Your task to perform on an android device: turn on location history Image 0: 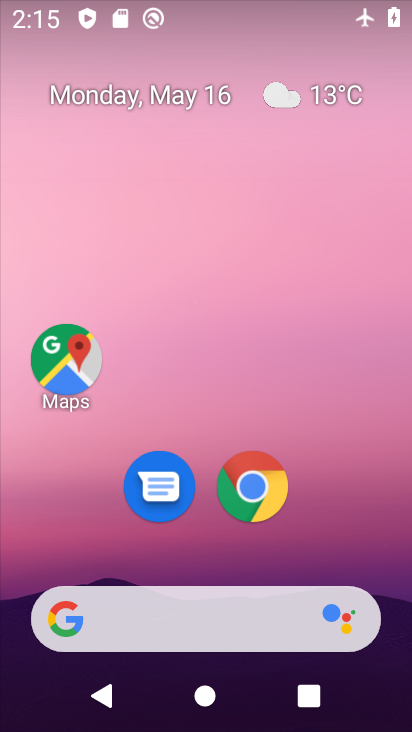
Step 0: drag from (376, 451) to (337, 76)
Your task to perform on an android device: turn on location history Image 1: 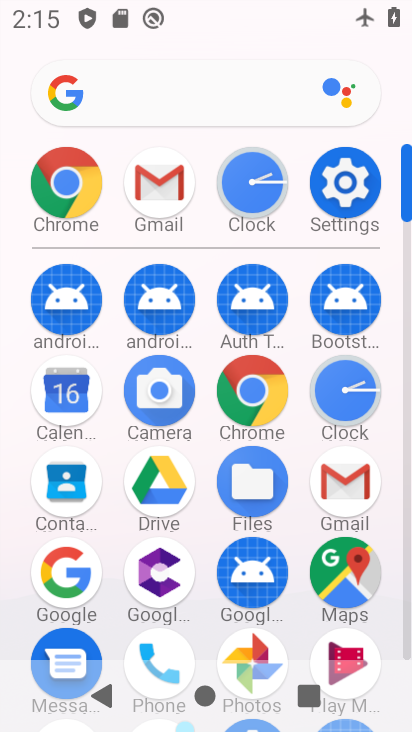
Step 1: click (344, 162)
Your task to perform on an android device: turn on location history Image 2: 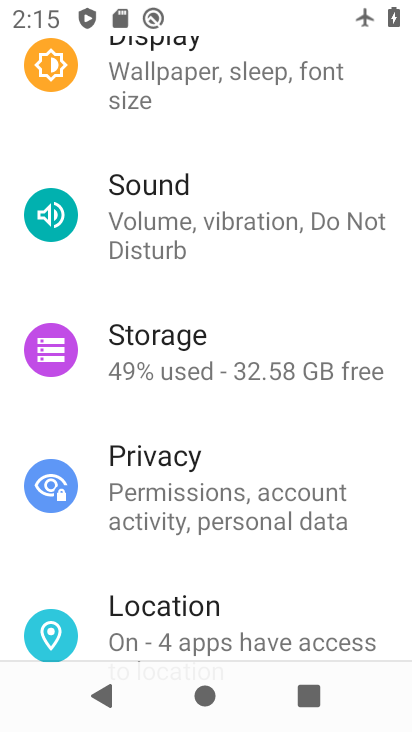
Step 2: click (196, 611)
Your task to perform on an android device: turn on location history Image 3: 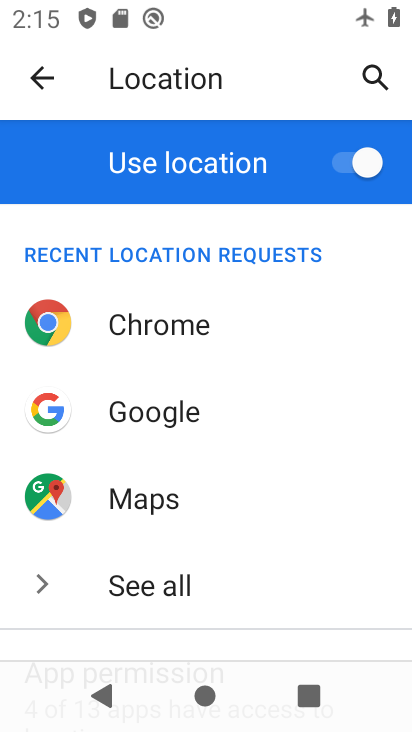
Step 3: drag from (207, 601) to (184, 220)
Your task to perform on an android device: turn on location history Image 4: 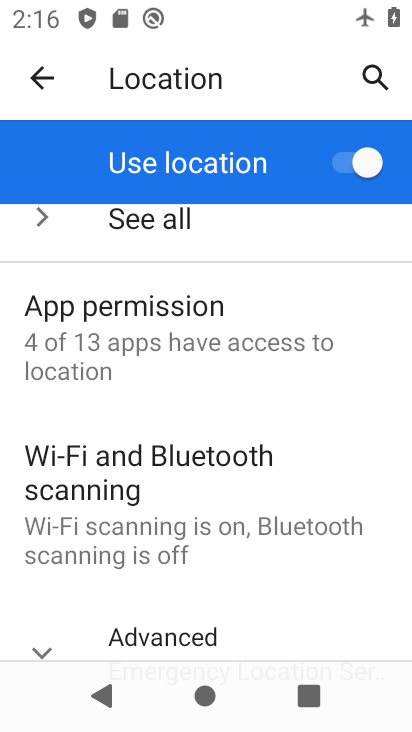
Step 4: drag from (190, 646) to (149, 312)
Your task to perform on an android device: turn on location history Image 5: 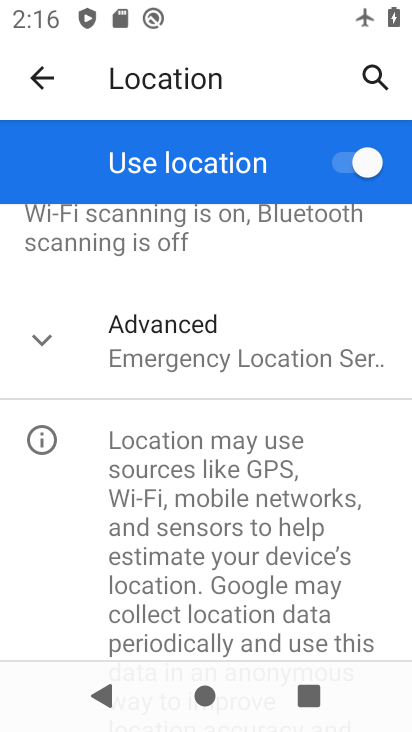
Step 5: drag from (125, 513) to (114, 235)
Your task to perform on an android device: turn on location history Image 6: 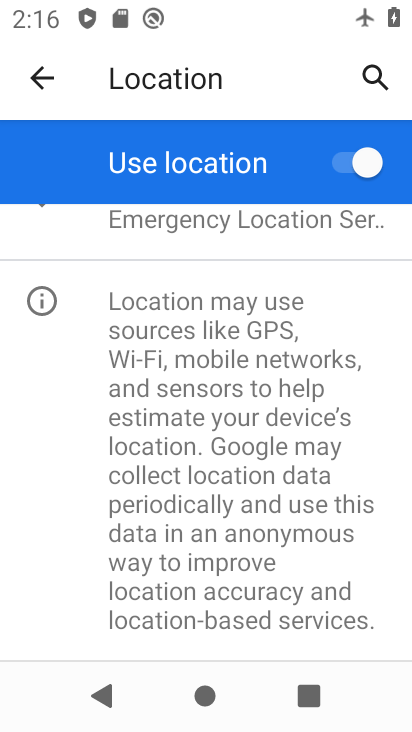
Step 6: drag from (213, 485) to (191, 145)
Your task to perform on an android device: turn on location history Image 7: 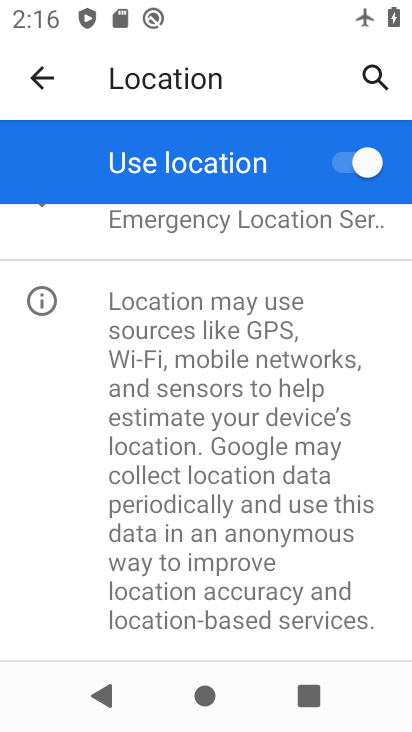
Step 7: drag from (201, 564) to (172, 173)
Your task to perform on an android device: turn on location history Image 8: 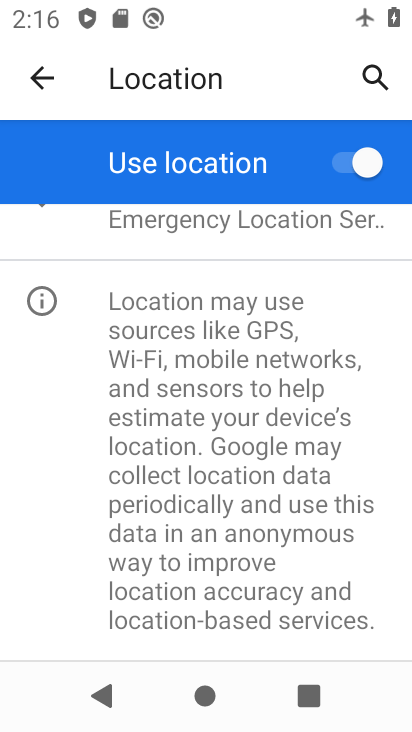
Step 8: click (33, 74)
Your task to perform on an android device: turn on location history Image 9: 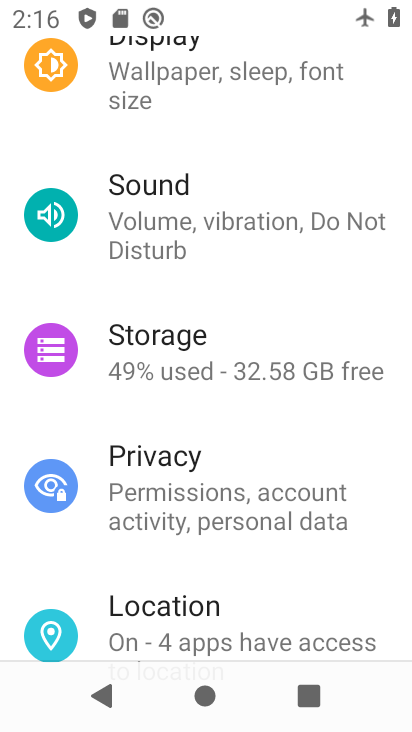
Step 9: press home button
Your task to perform on an android device: turn on location history Image 10: 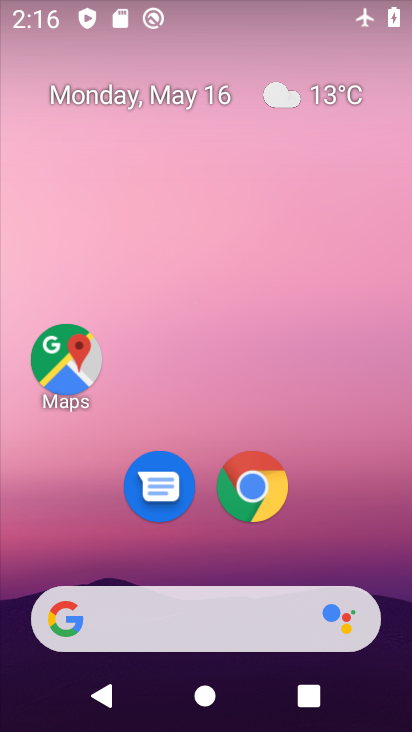
Step 10: drag from (395, 536) to (371, 101)
Your task to perform on an android device: turn on location history Image 11: 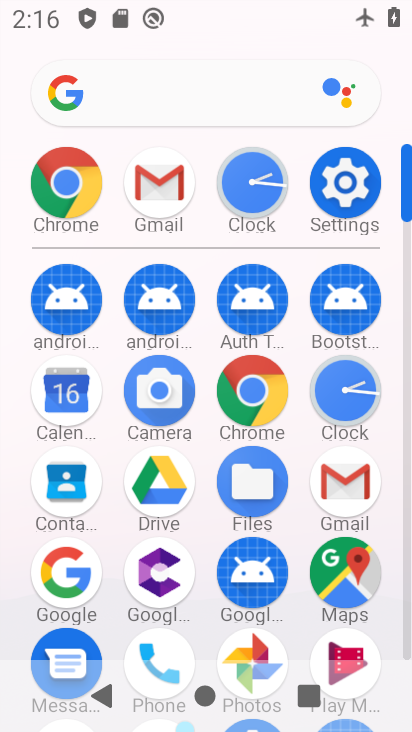
Step 11: click (365, 155)
Your task to perform on an android device: turn on location history Image 12: 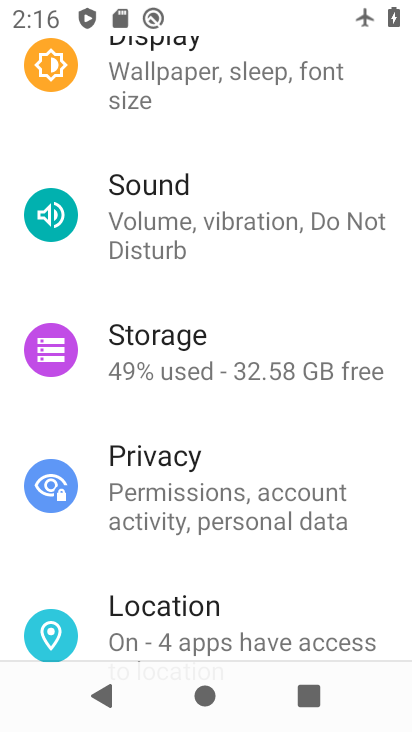
Step 12: click (178, 630)
Your task to perform on an android device: turn on location history Image 13: 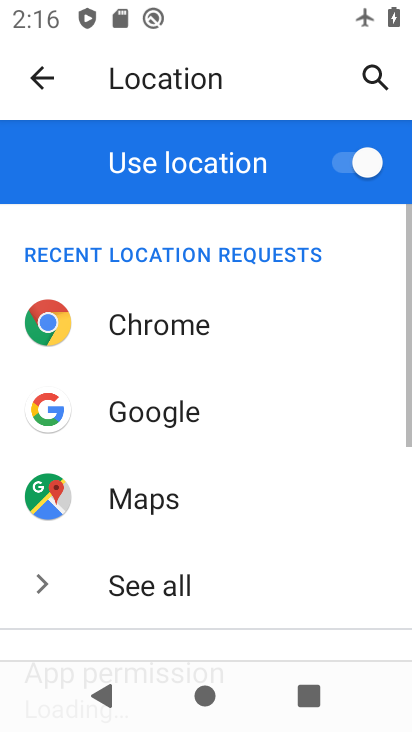
Step 13: drag from (183, 623) to (201, 185)
Your task to perform on an android device: turn on location history Image 14: 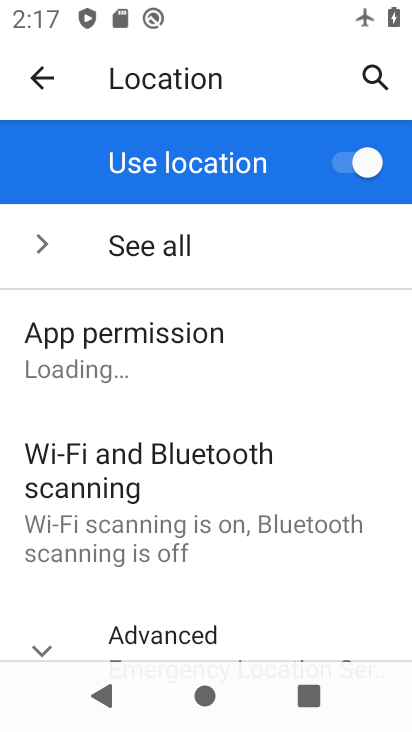
Step 14: drag from (263, 585) to (291, 242)
Your task to perform on an android device: turn on location history Image 15: 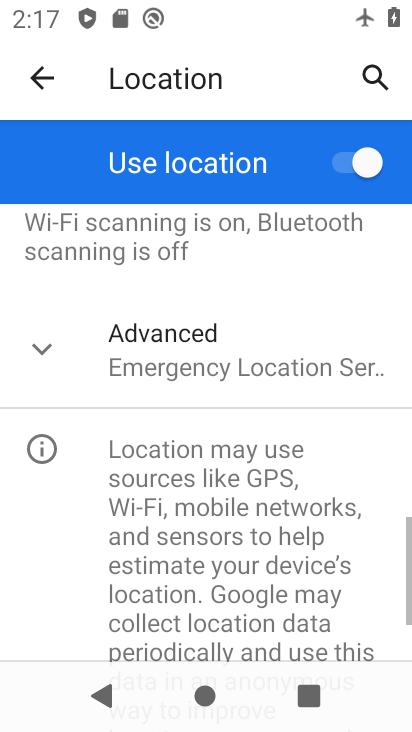
Step 15: click (239, 362)
Your task to perform on an android device: turn on location history Image 16: 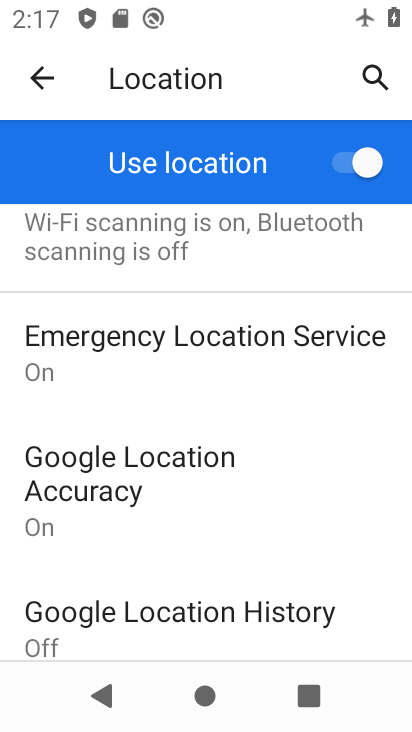
Step 16: drag from (261, 538) to (310, 242)
Your task to perform on an android device: turn on location history Image 17: 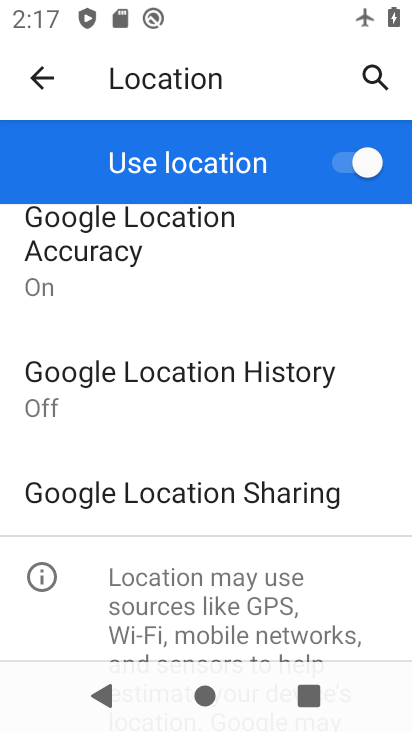
Step 17: drag from (290, 607) to (315, 275)
Your task to perform on an android device: turn on location history Image 18: 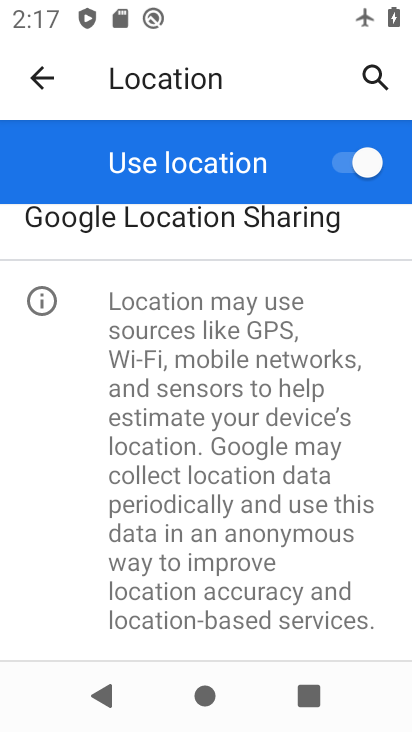
Step 18: drag from (242, 560) to (316, 261)
Your task to perform on an android device: turn on location history Image 19: 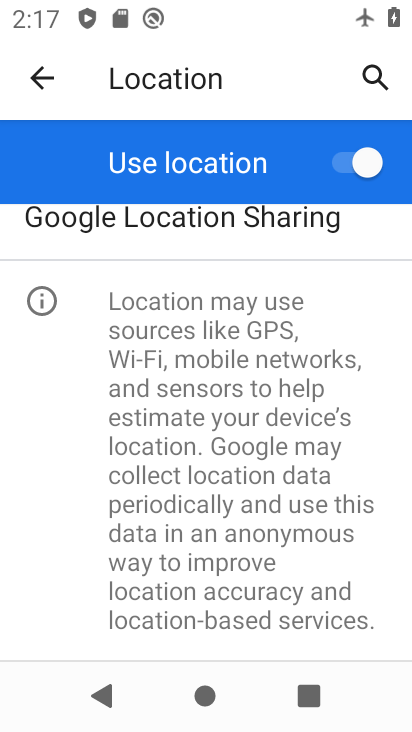
Step 19: drag from (318, 262) to (367, 563)
Your task to perform on an android device: turn on location history Image 20: 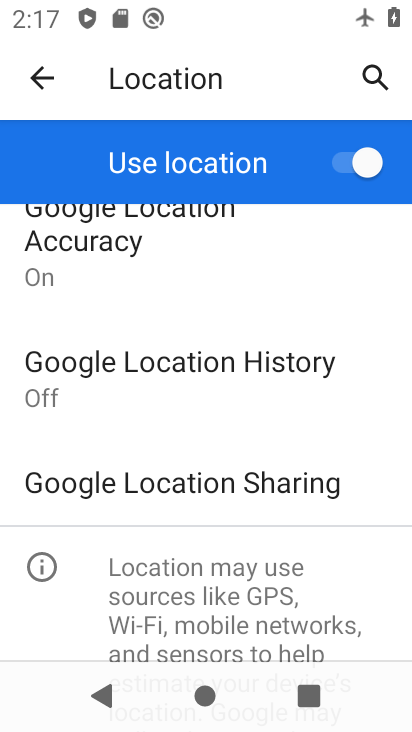
Step 20: drag from (269, 321) to (289, 420)
Your task to perform on an android device: turn on location history Image 21: 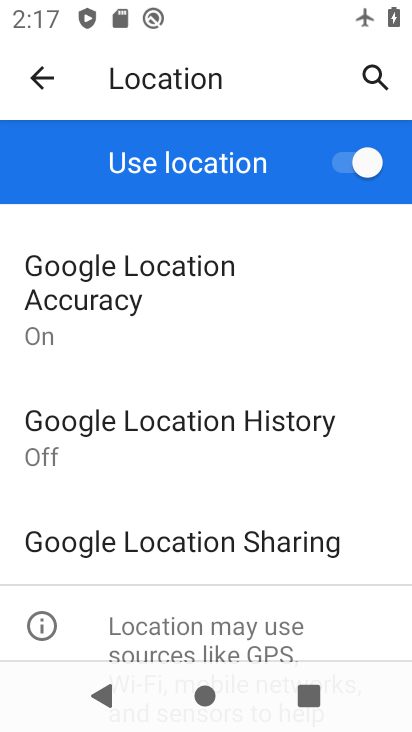
Step 21: click (240, 443)
Your task to perform on an android device: turn on location history Image 22: 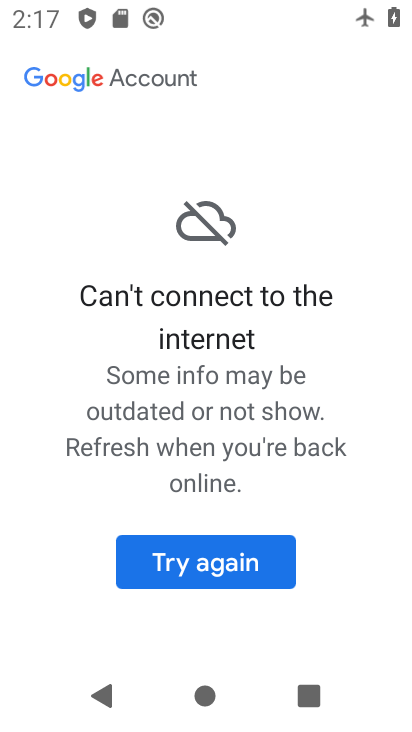
Step 22: click (235, 553)
Your task to perform on an android device: turn on location history Image 23: 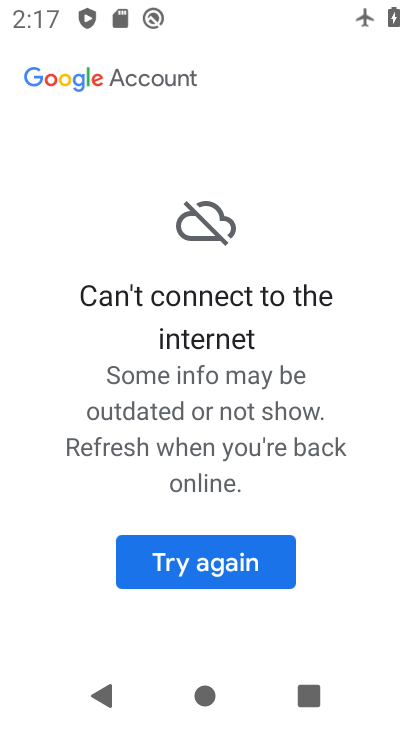
Step 23: task complete